Your task to perform on an android device: set default search engine in the chrome app Image 0: 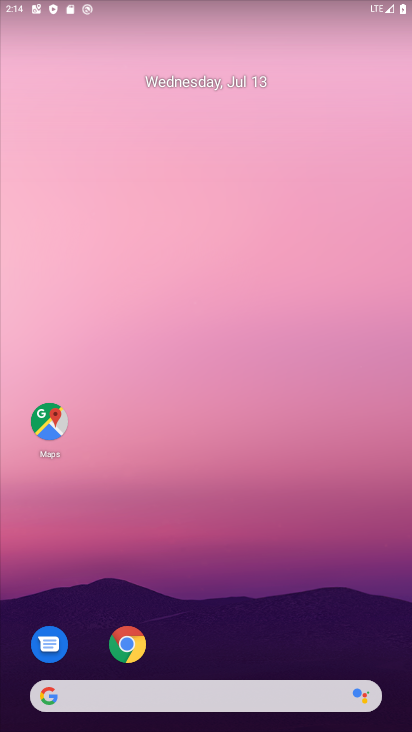
Step 0: drag from (304, 609) to (232, 78)
Your task to perform on an android device: set default search engine in the chrome app Image 1: 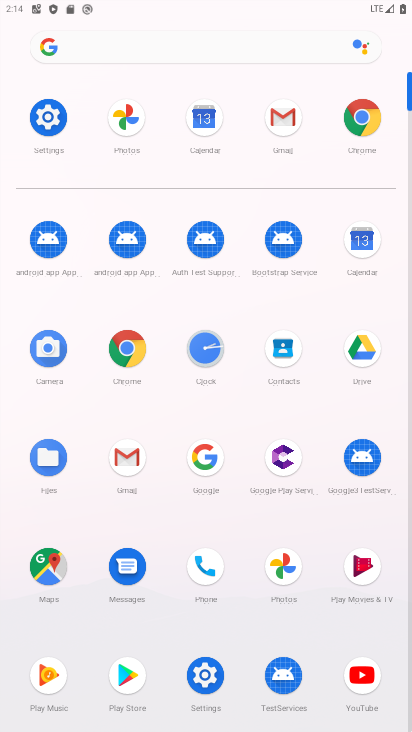
Step 1: click (365, 118)
Your task to perform on an android device: set default search engine in the chrome app Image 2: 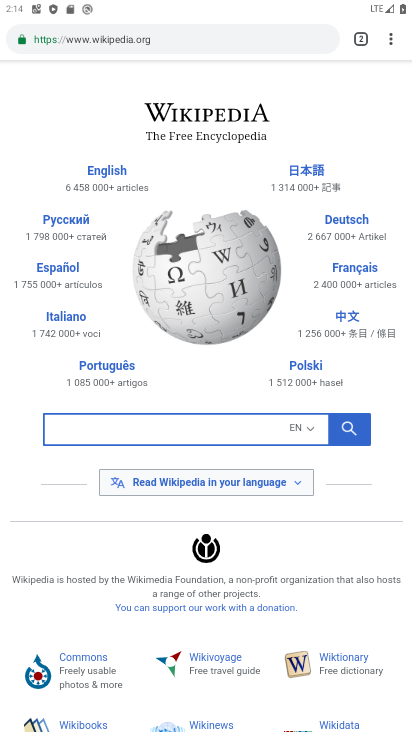
Step 2: click (390, 40)
Your task to perform on an android device: set default search engine in the chrome app Image 3: 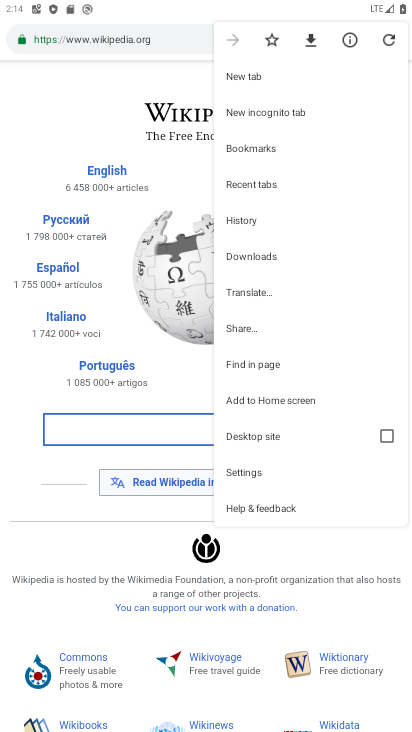
Step 3: click (267, 472)
Your task to perform on an android device: set default search engine in the chrome app Image 4: 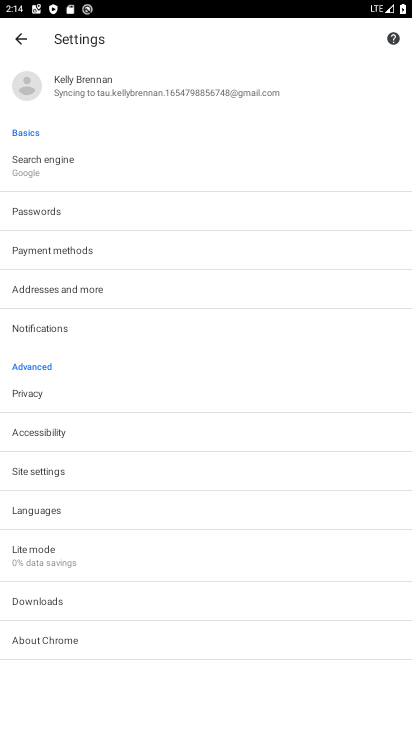
Step 4: click (100, 172)
Your task to perform on an android device: set default search engine in the chrome app Image 5: 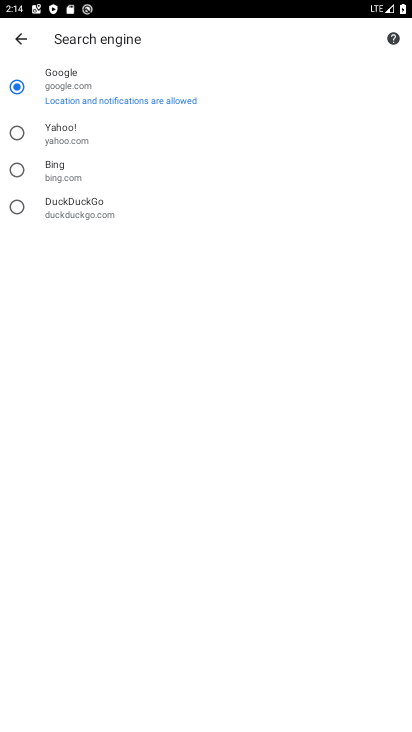
Step 5: task complete